Your task to perform on an android device: delete browsing data in the chrome app Image 0: 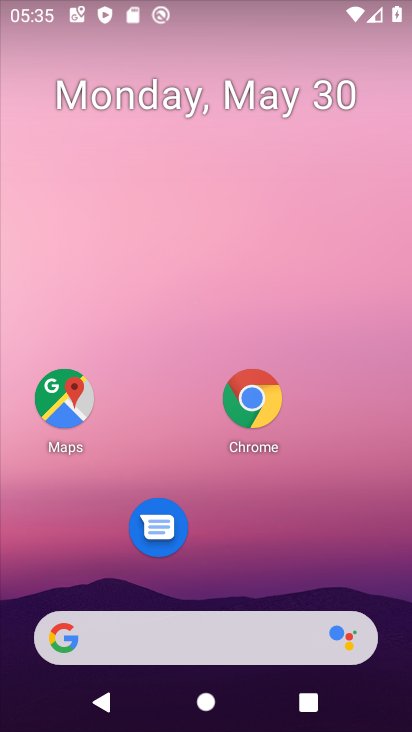
Step 0: click (254, 399)
Your task to perform on an android device: delete browsing data in the chrome app Image 1: 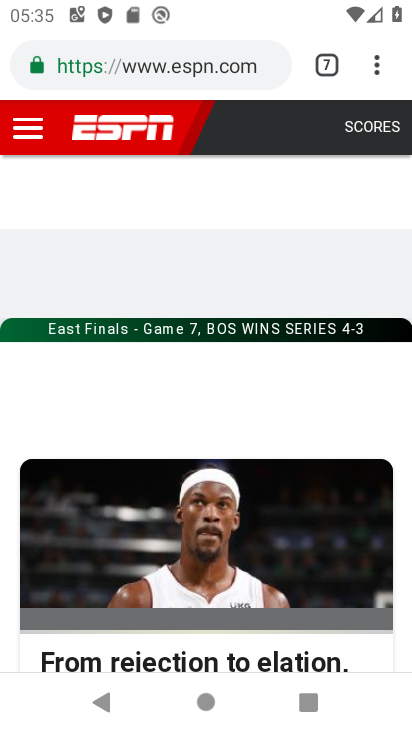
Step 1: click (380, 72)
Your task to perform on an android device: delete browsing data in the chrome app Image 2: 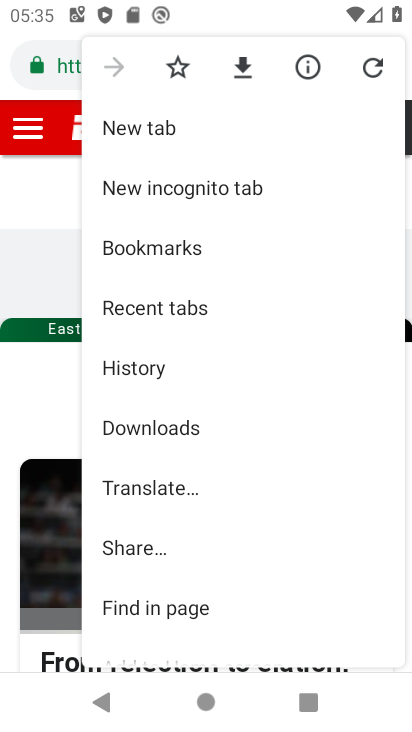
Step 2: drag from (175, 572) to (198, 180)
Your task to perform on an android device: delete browsing data in the chrome app Image 3: 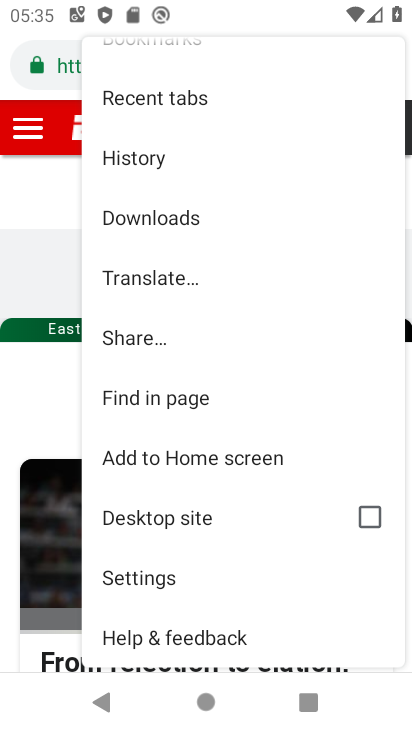
Step 3: drag from (165, 323) to (166, 250)
Your task to perform on an android device: delete browsing data in the chrome app Image 4: 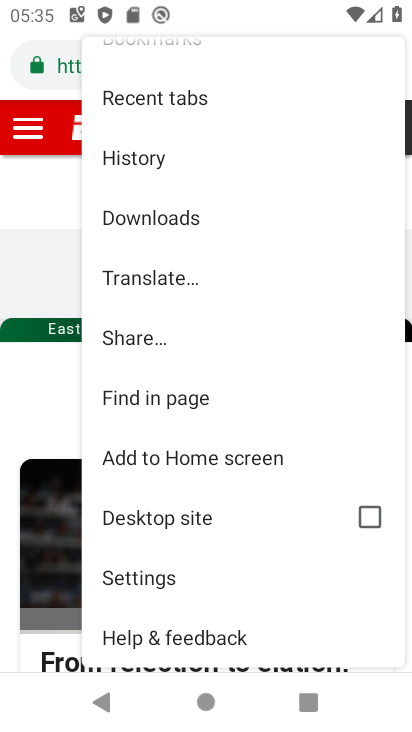
Step 4: click (141, 149)
Your task to perform on an android device: delete browsing data in the chrome app Image 5: 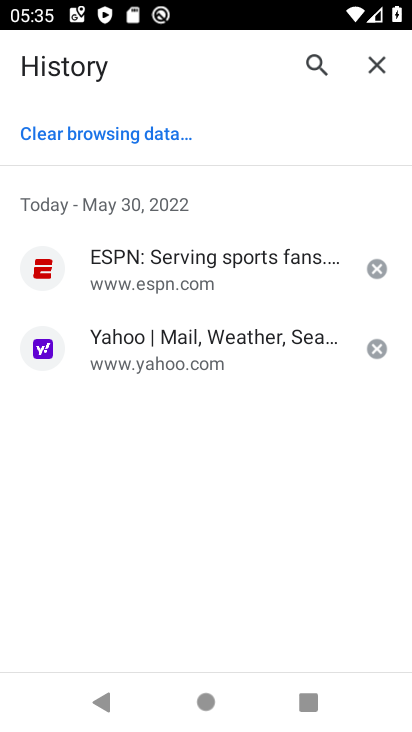
Step 5: click (96, 128)
Your task to perform on an android device: delete browsing data in the chrome app Image 6: 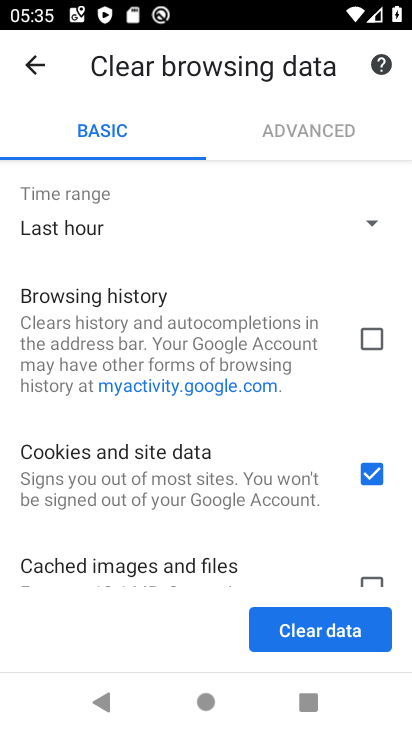
Step 6: click (372, 336)
Your task to perform on an android device: delete browsing data in the chrome app Image 7: 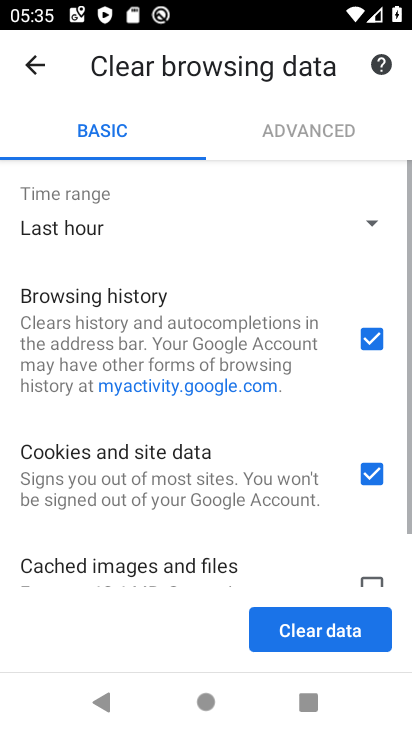
Step 7: click (372, 466)
Your task to perform on an android device: delete browsing data in the chrome app Image 8: 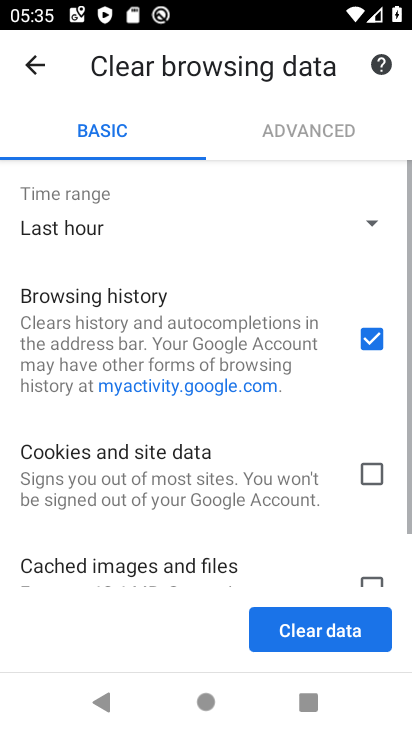
Step 8: click (326, 621)
Your task to perform on an android device: delete browsing data in the chrome app Image 9: 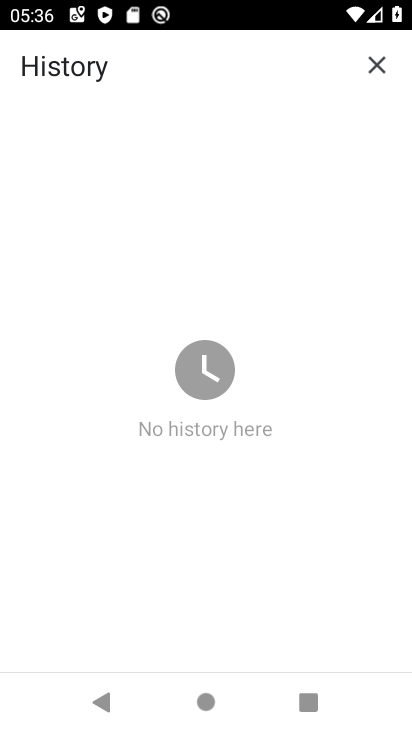
Step 9: task complete